Your task to perform on an android device: View the shopping cart on costco. Add "corsair k70" to the cart on costco, then select checkout. Image 0: 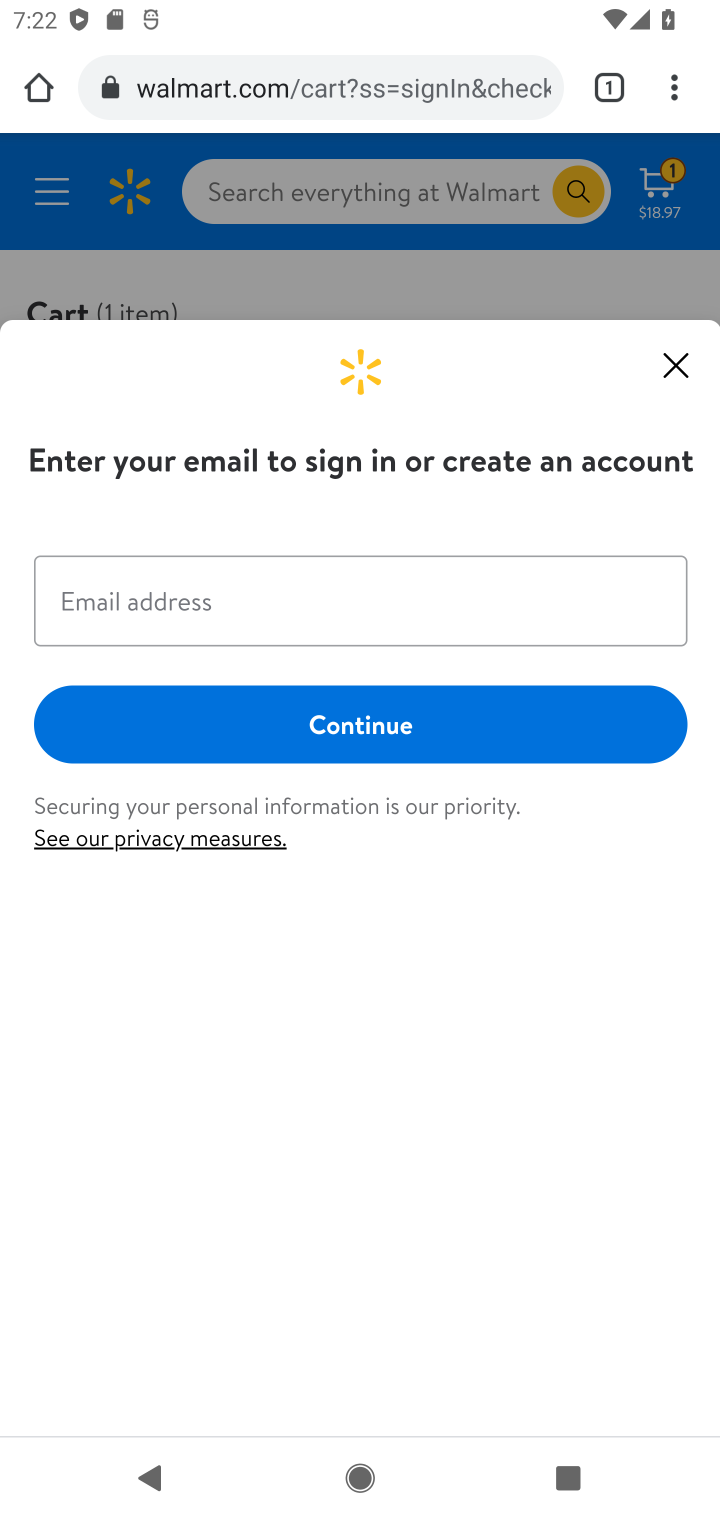
Step 0: press home button
Your task to perform on an android device: View the shopping cart on costco. Add "corsair k70" to the cart on costco, then select checkout. Image 1: 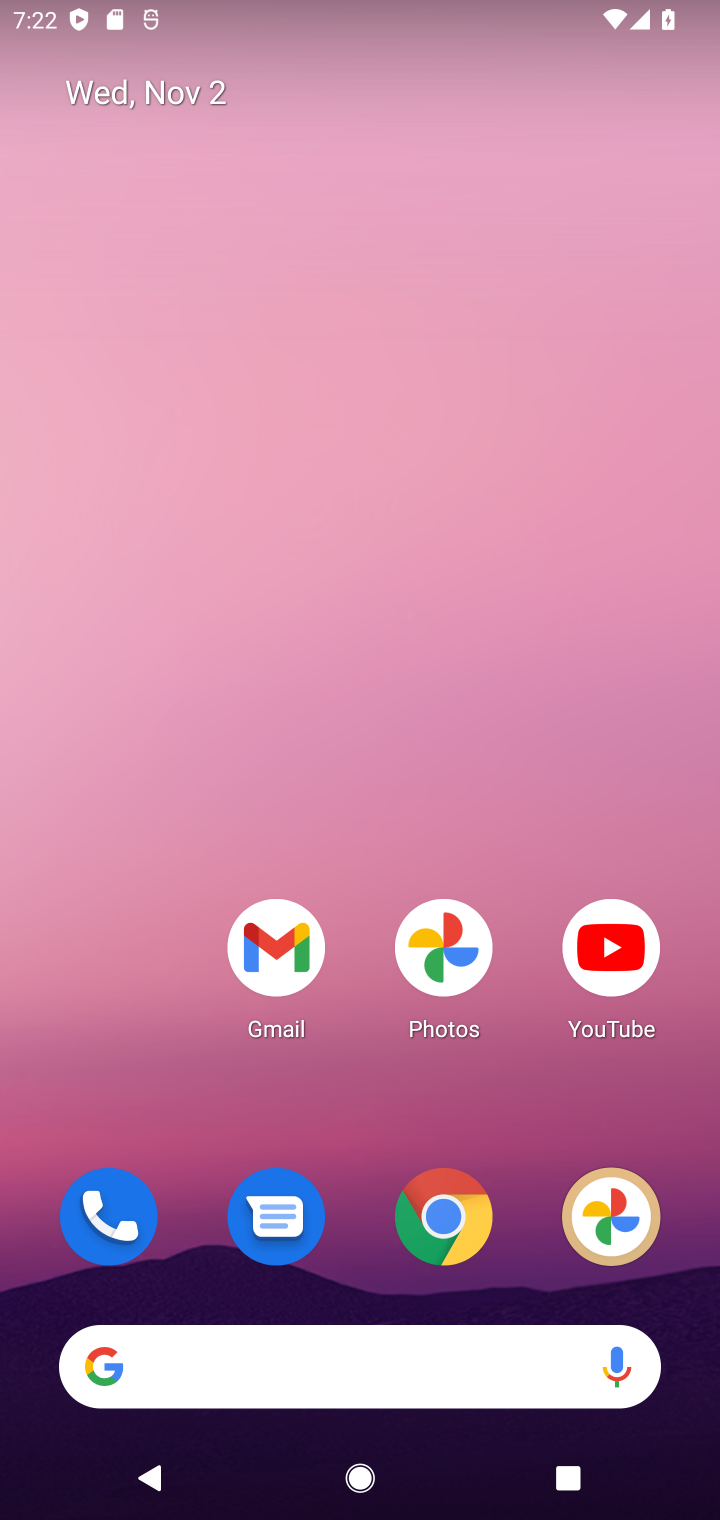
Step 1: click (465, 1226)
Your task to perform on an android device: View the shopping cart on costco. Add "corsair k70" to the cart on costco, then select checkout. Image 2: 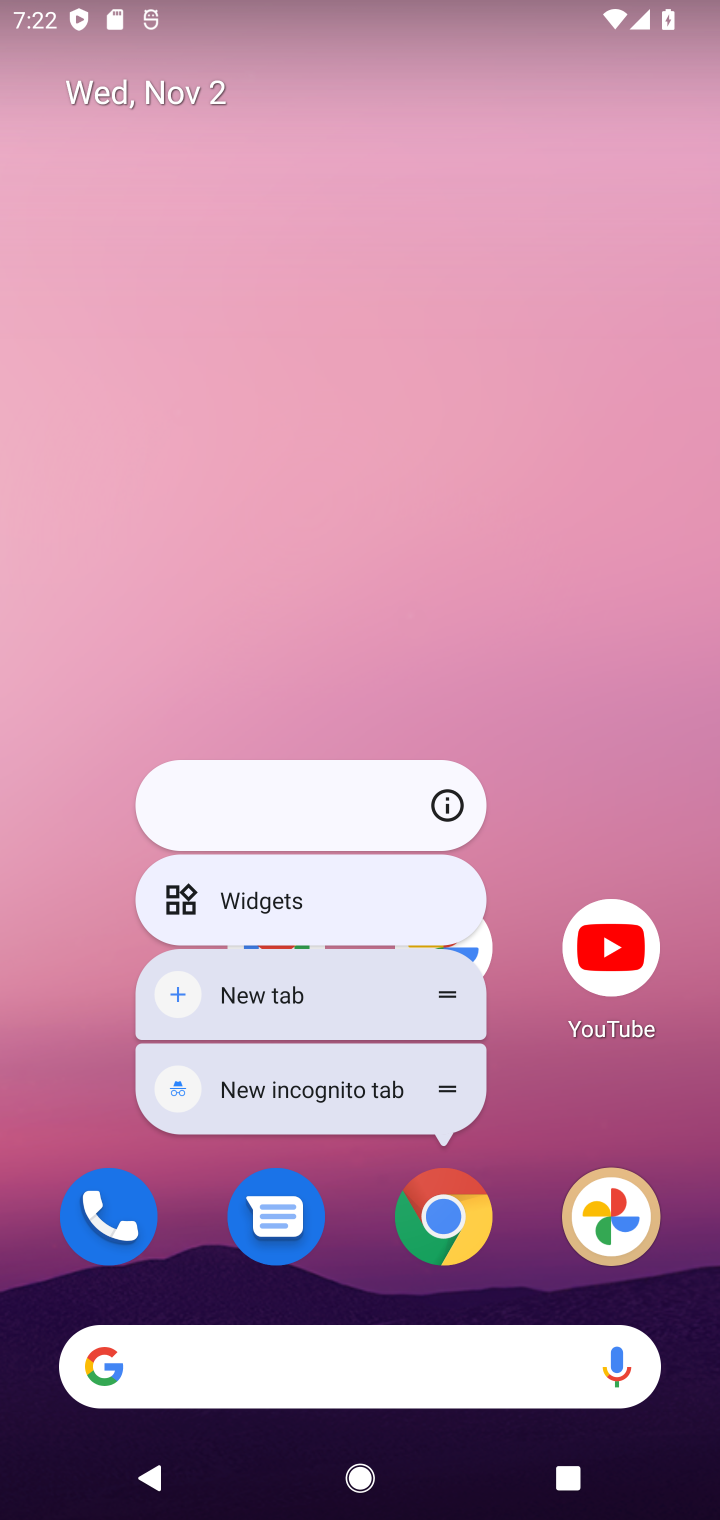
Step 2: click (425, 1260)
Your task to perform on an android device: View the shopping cart on costco. Add "corsair k70" to the cart on costco, then select checkout. Image 3: 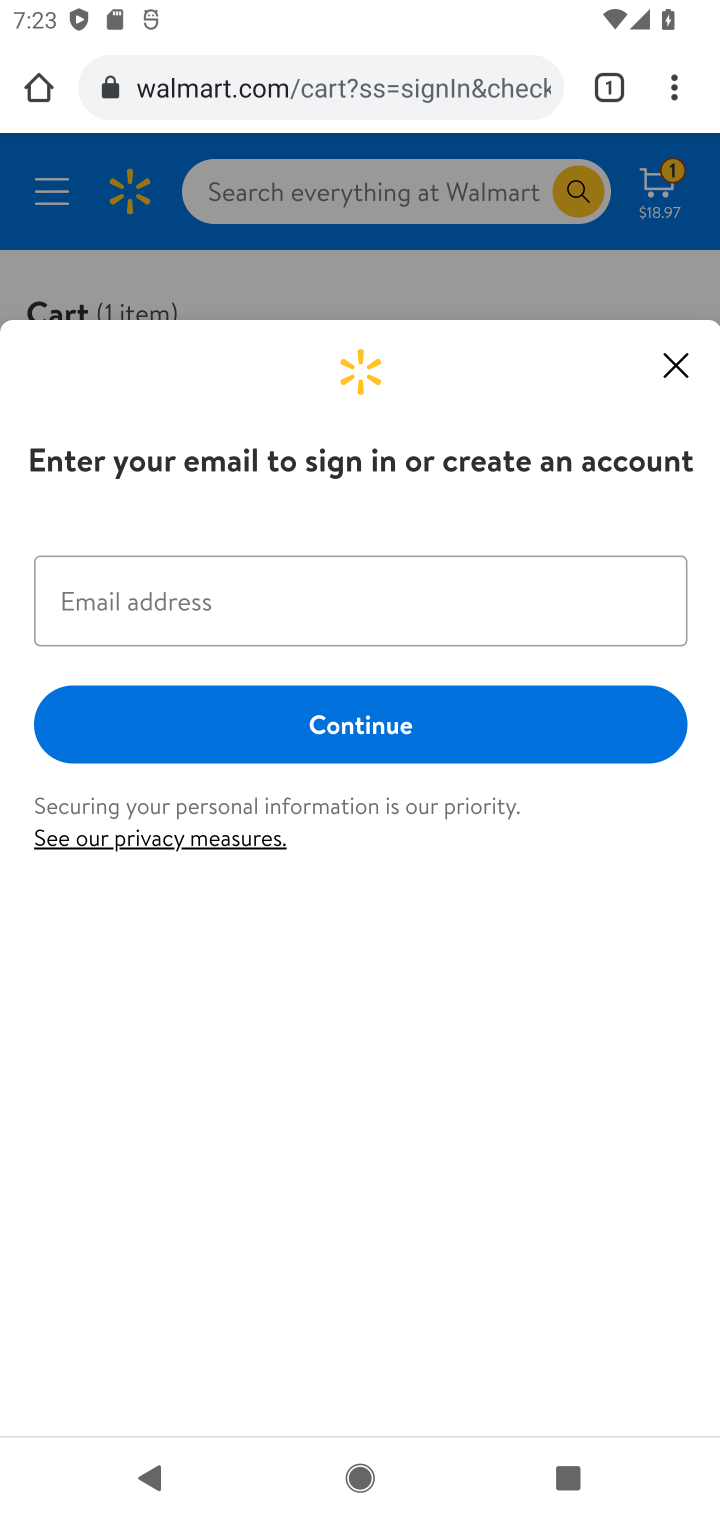
Step 3: click (305, 80)
Your task to perform on an android device: View the shopping cart on costco. Add "corsair k70" to the cart on costco, then select checkout. Image 4: 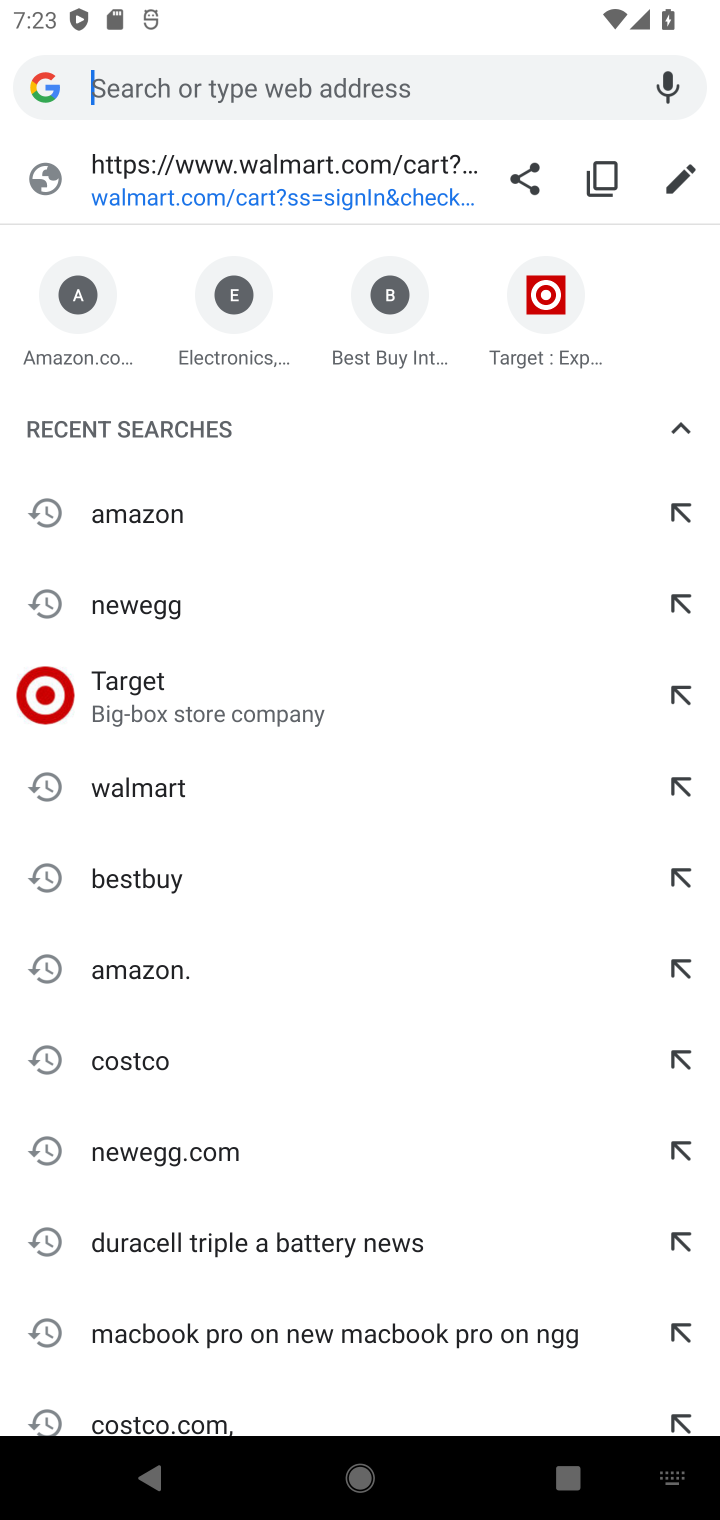
Step 4: type "costco"
Your task to perform on an android device: View the shopping cart on costco. Add "corsair k70" to the cart on costco, then select checkout. Image 5: 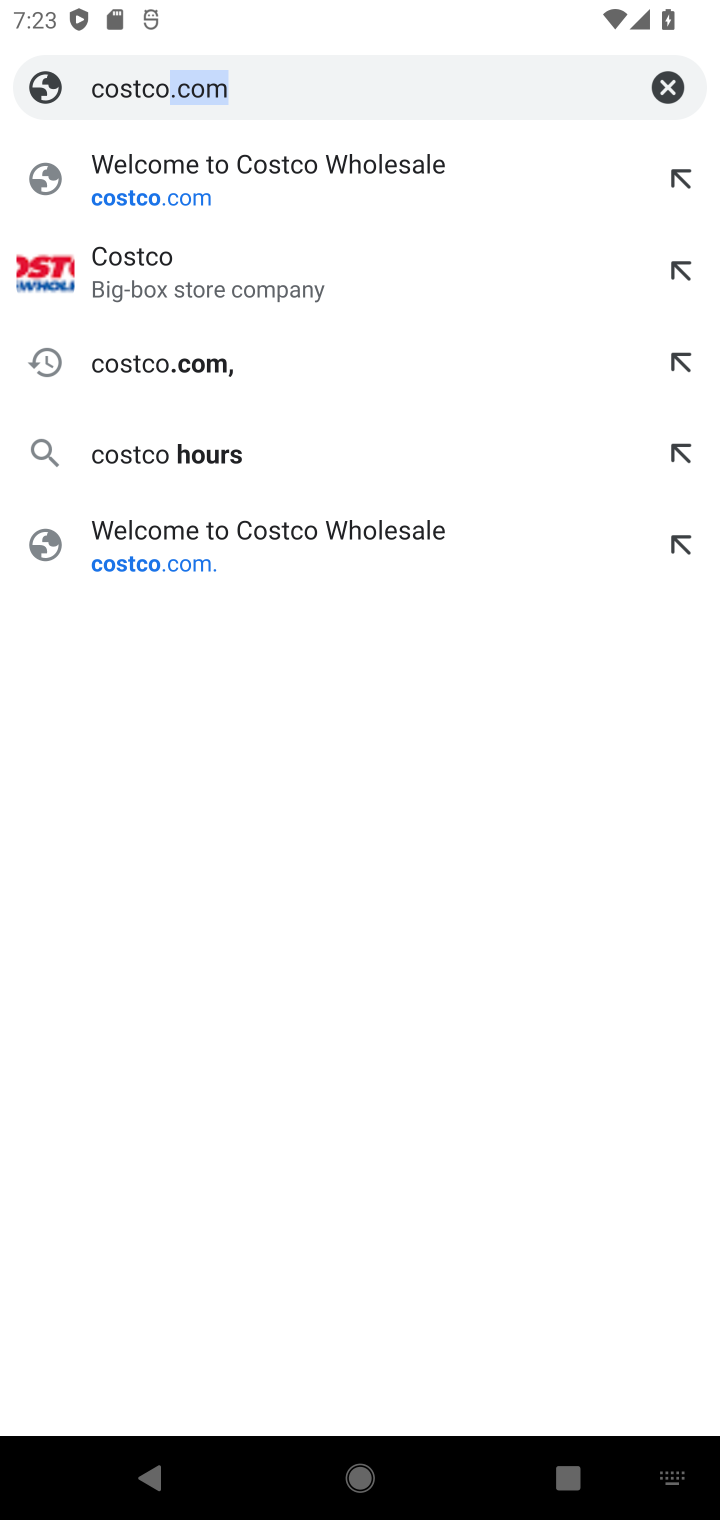
Step 5: press enter
Your task to perform on an android device: View the shopping cart on costco. Add "corsair k70" to the cart on costco, then select checkout. Image 6: 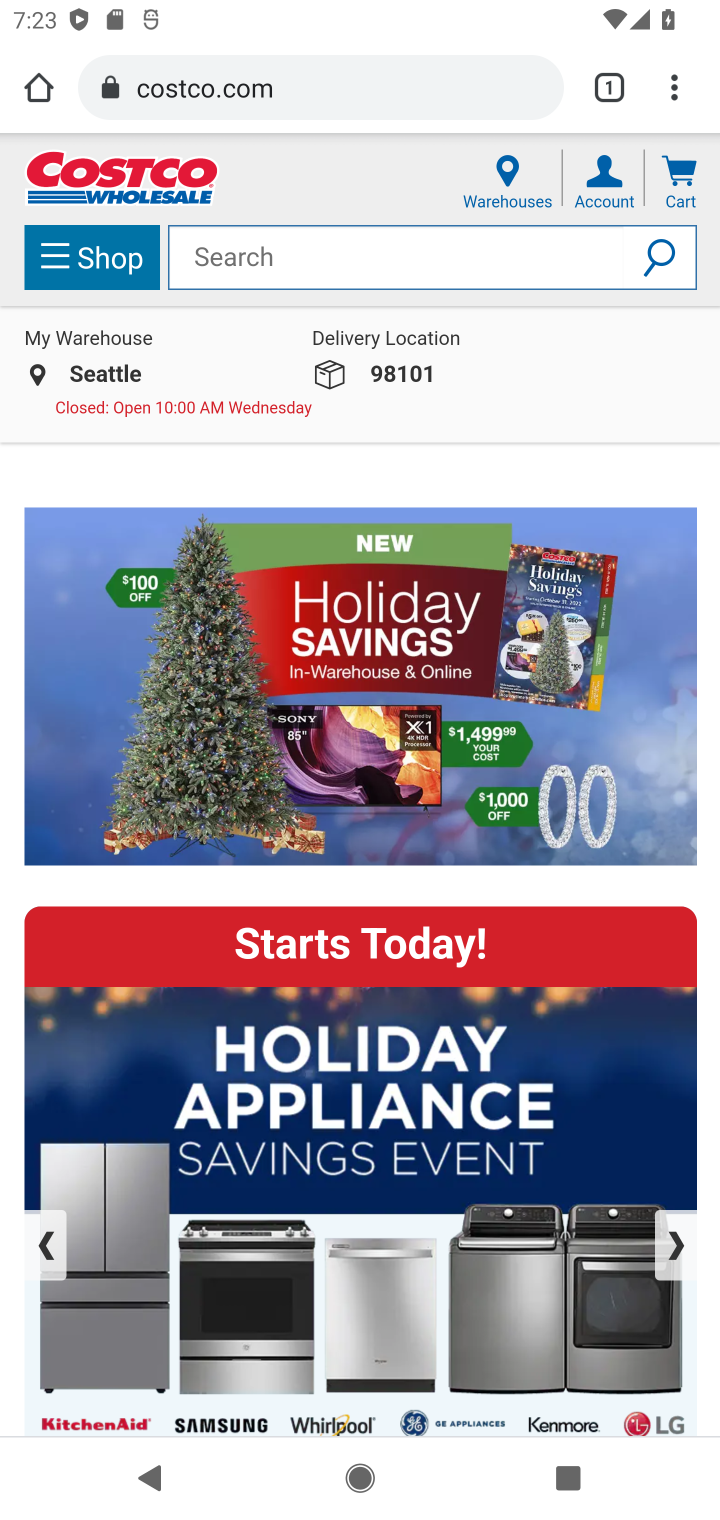
Step 6: click (327, 250)
Your task to perform on an android device: View the shopping cart on costco. Add "corsair k70" to the cart on costco, then select checkout. Image 7: 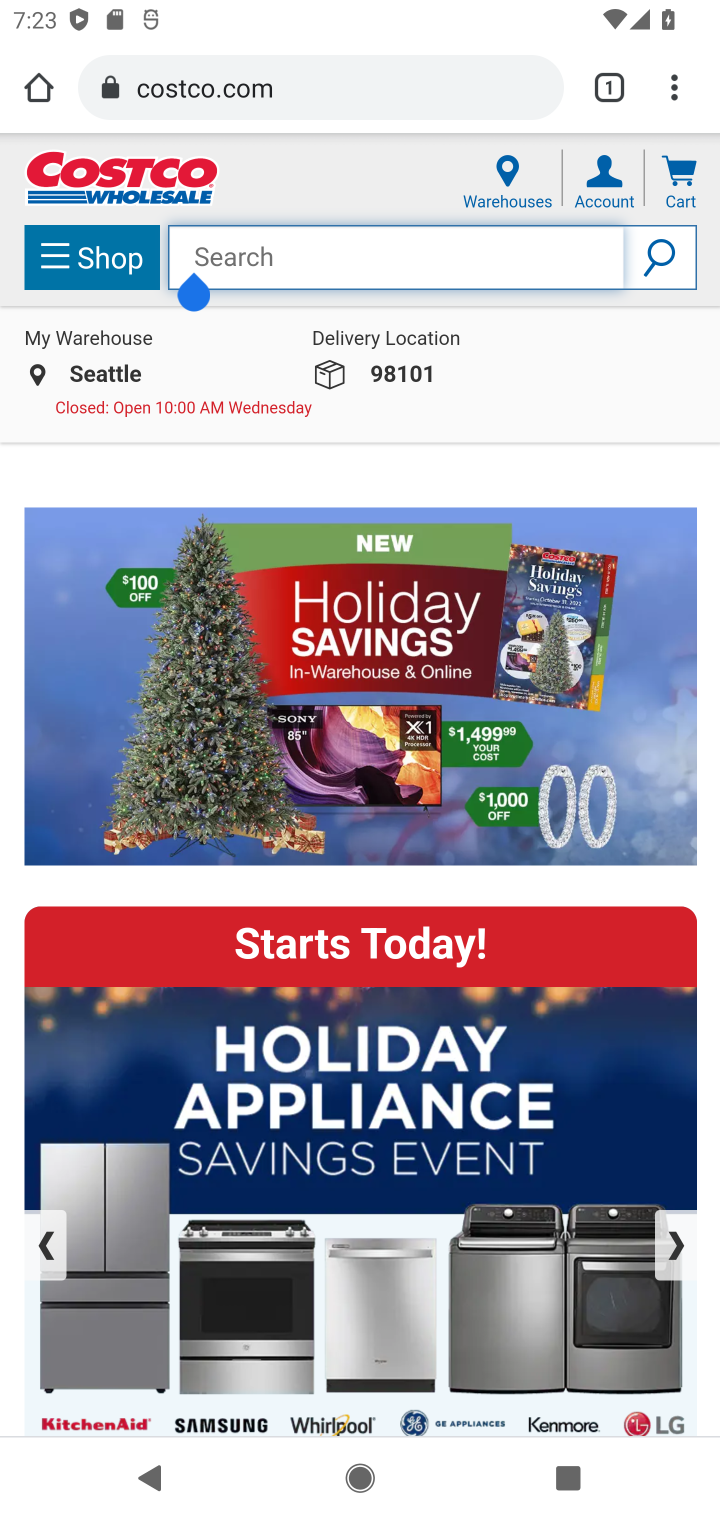
Step 7: type "corsair k70"
Your task to perform on an android device: View the shopping cart on costco. Add "corsair k70" to the cart on costco, then select checkout. Image 8: 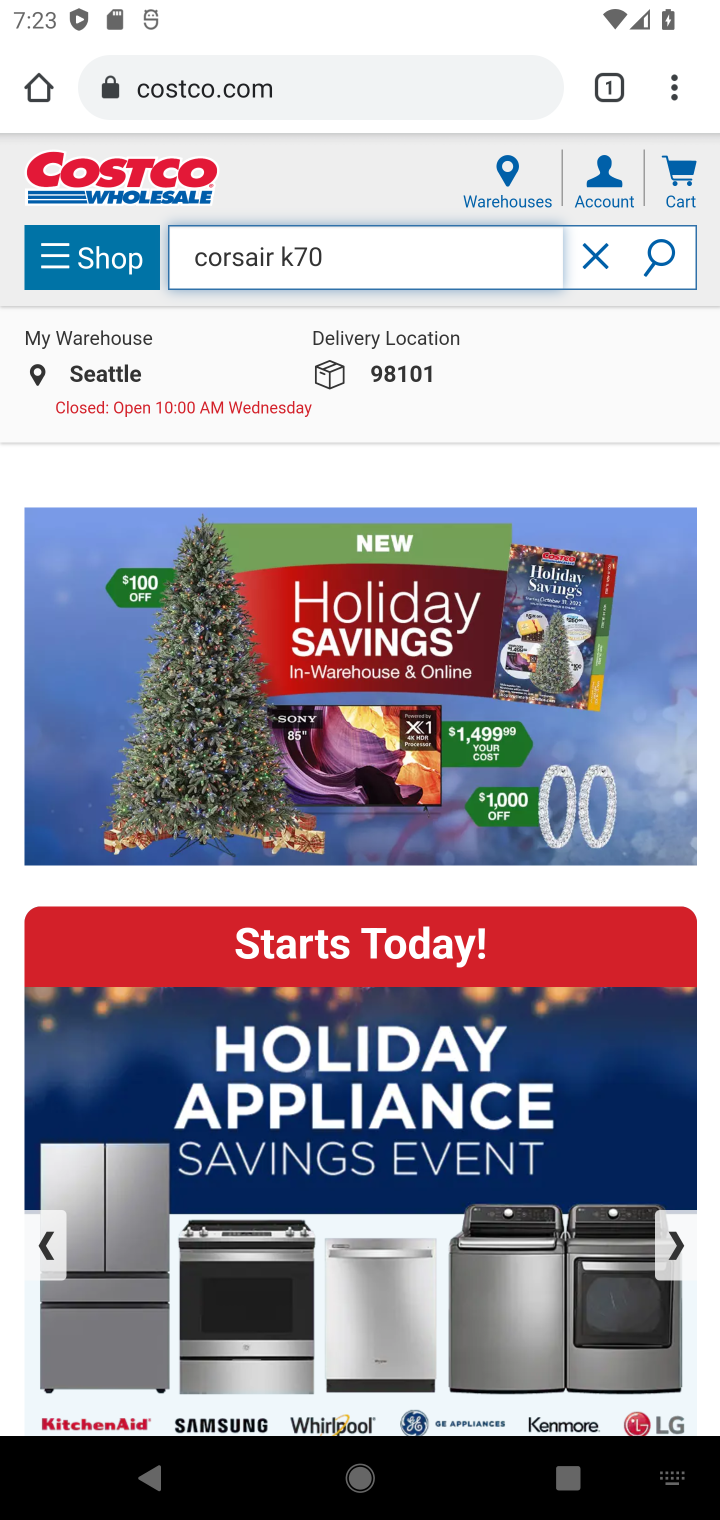
Step 8: press enter
Your task to perform on an android device: View the shopping cart on costco. Add "corsair k70" to the cart on costco, then select checkout. Image 9: 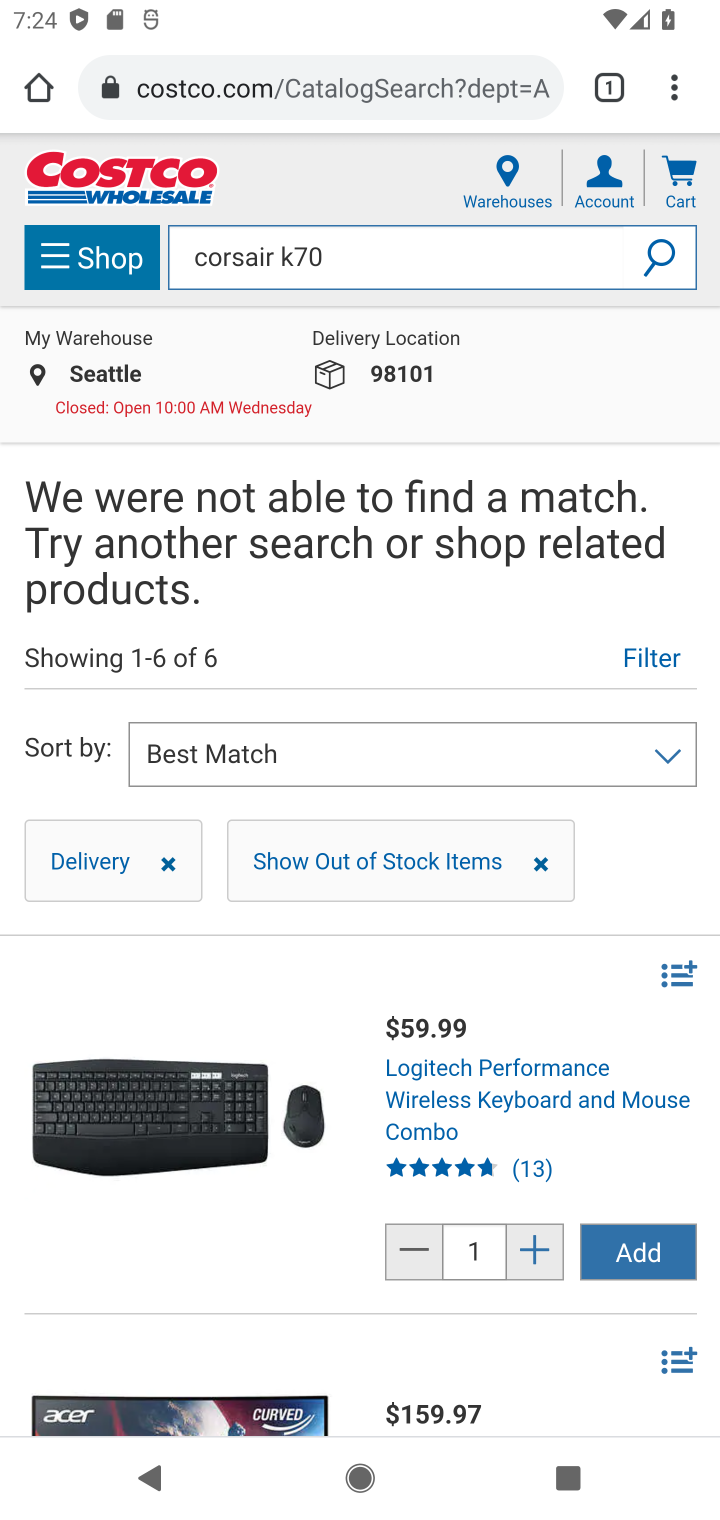
Step 9: task complete